Your task to perform on an android device: Open the calendar and show me this week's events Image 0: 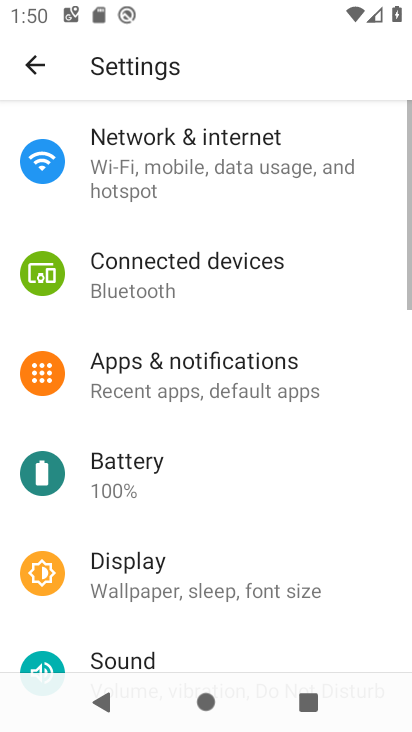
Step 0: press home button
Your task to perform on an android device: Open the calendar and show me this week's events Image 1: 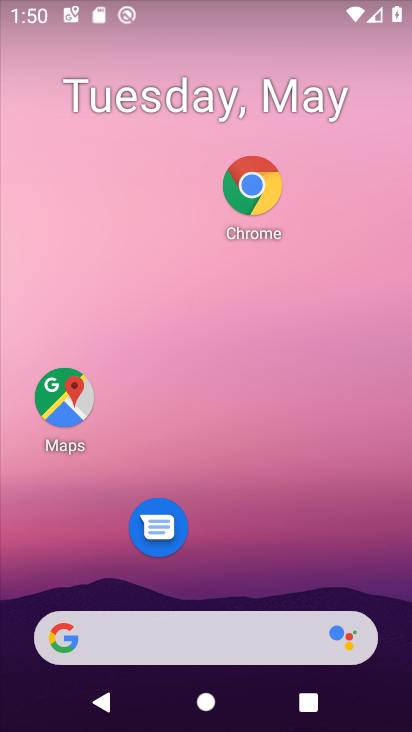
Step 1: drag from (266, 506) to (156, 7)
Your task to perform on an android device: Open the calendar and show me this week's events Image 2: 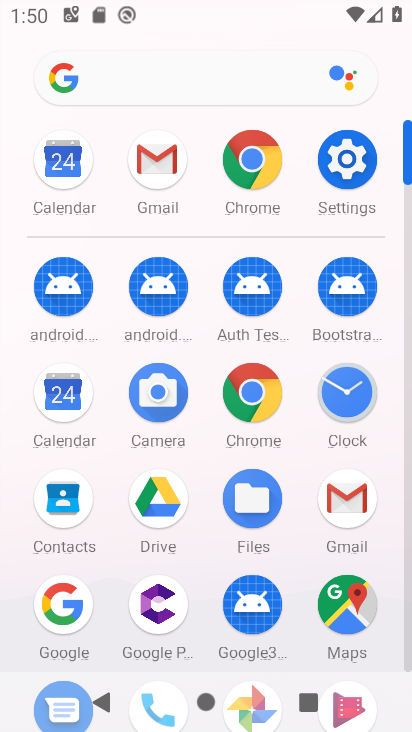
Step 2: click (58, 394)
Your task to perform on an android device: Open the calendar and show me this week's events Image 3: 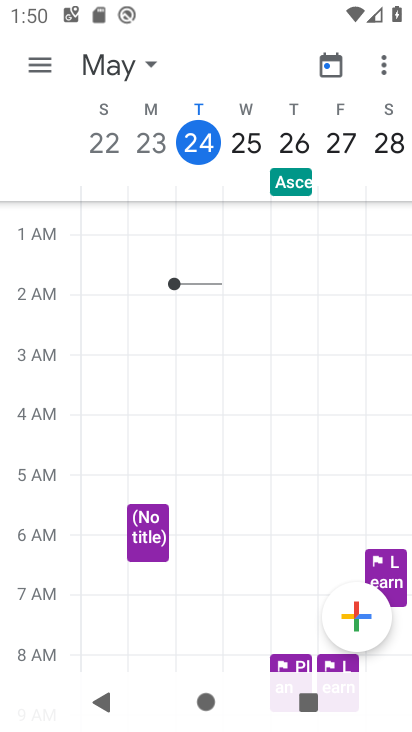
Step 3: task complete